Your task to perform on an android device: open app "Instagram" Image 0: 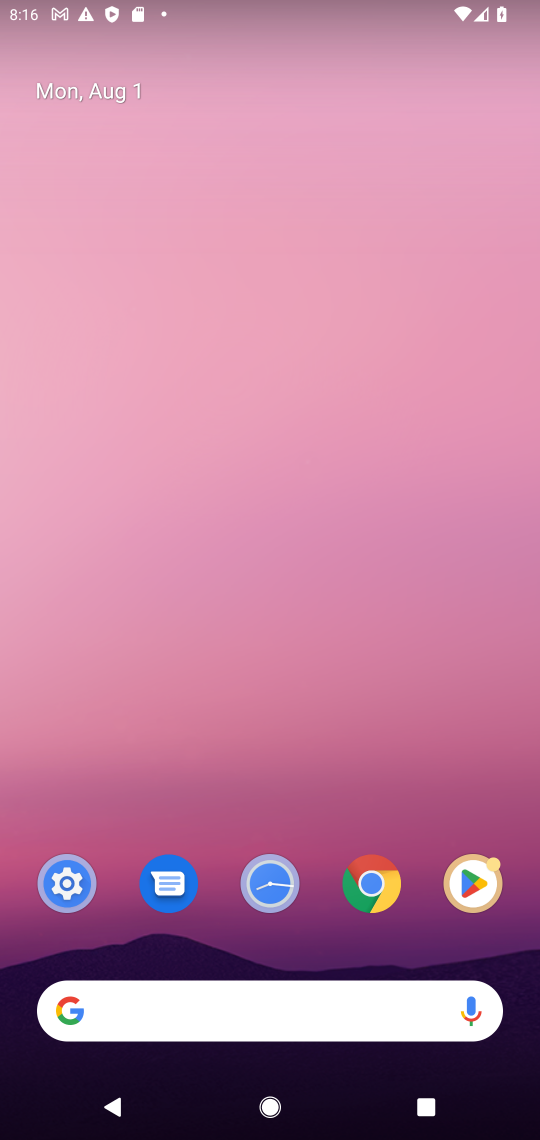
Step 0: drag from (305, 744) to (233, 408)
Your task to perform on an android device: open app "Instagram" Image 1: 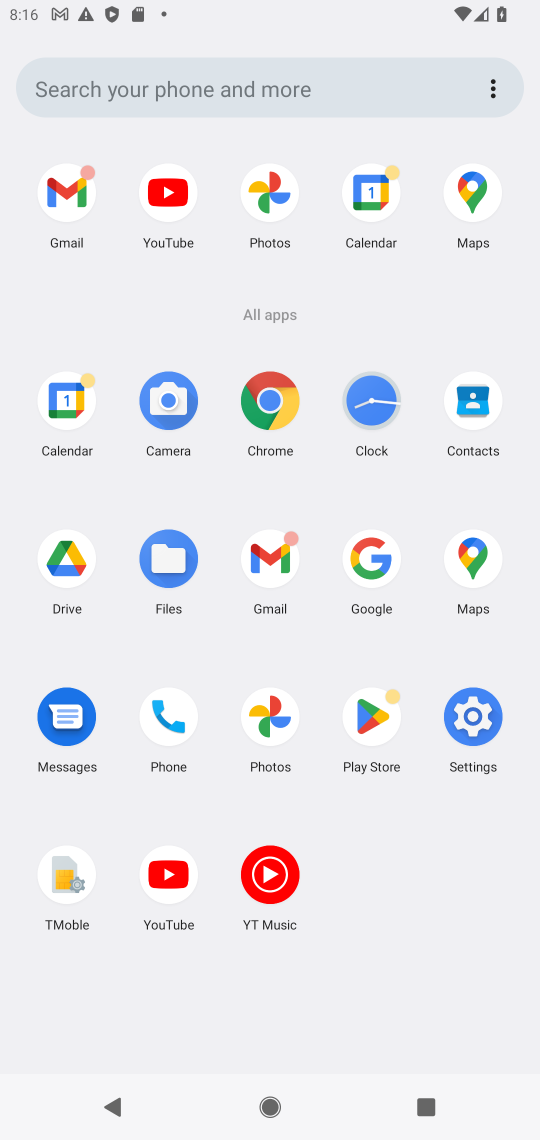
Step 1: click (370, 699)
Your task to perform on an android device: open app "Instagram" Image 2: 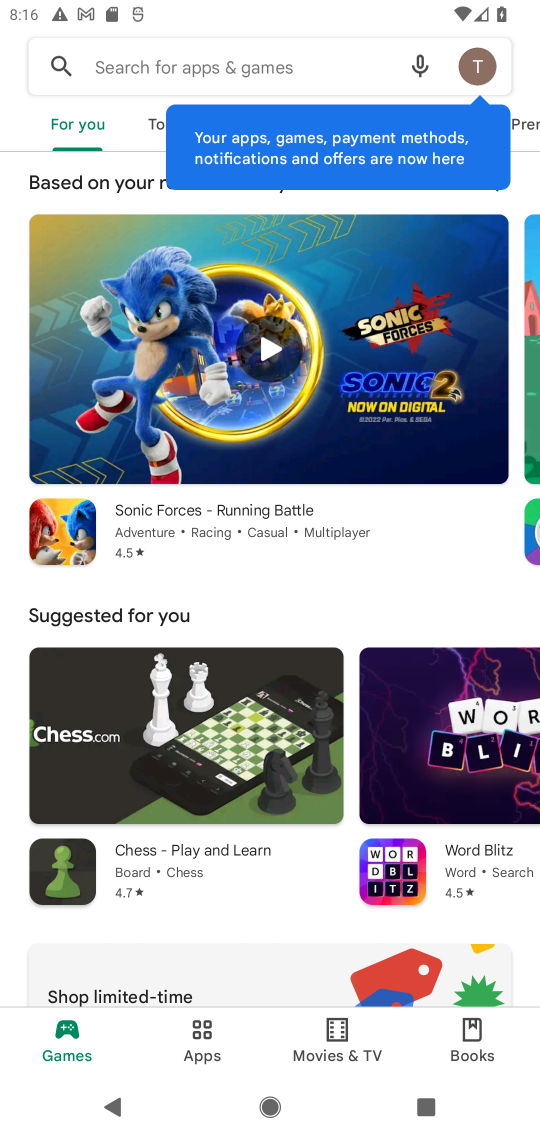
Step 2: click (299, 62)
Your task to perform on an android device: open app "Instagram" Image 3: 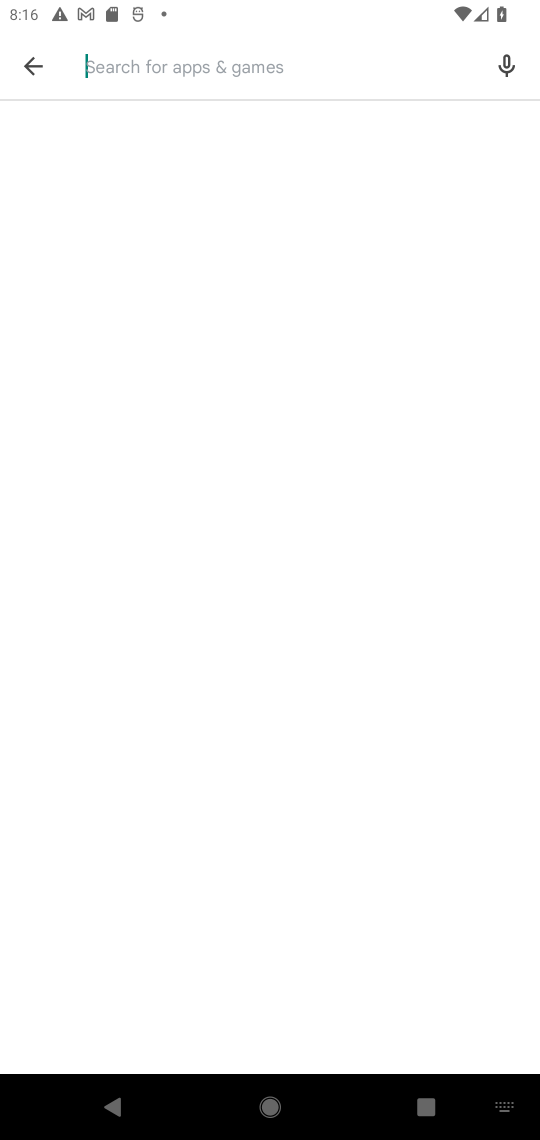
Step 3: type "insta"
Your task to perform on an android device: open app "Instagram" Image 4: 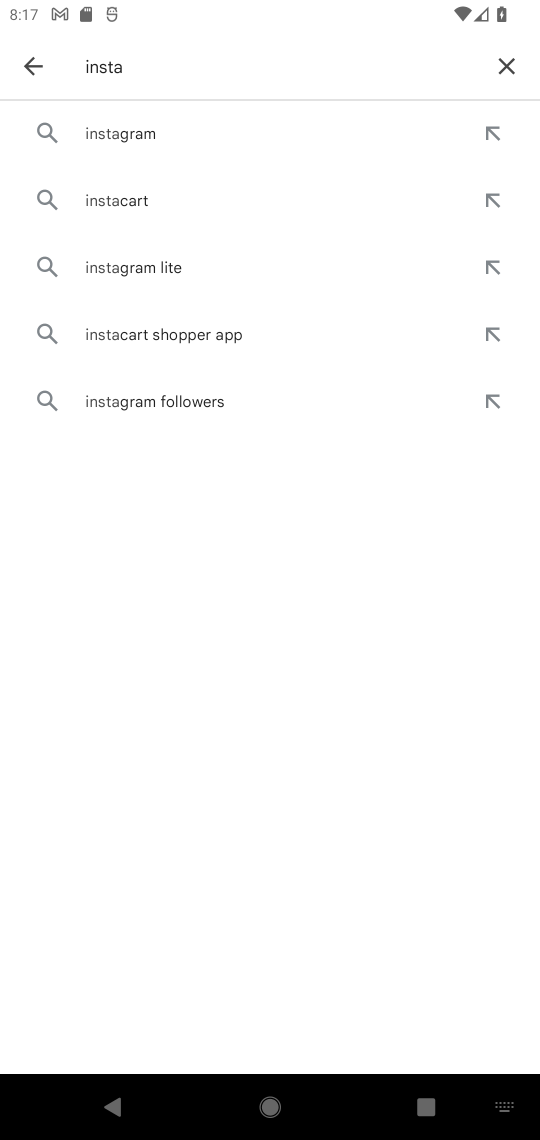
Step 4: click (311, 124)
Your task to perform on an android device: open app "Instagram" Image 5: 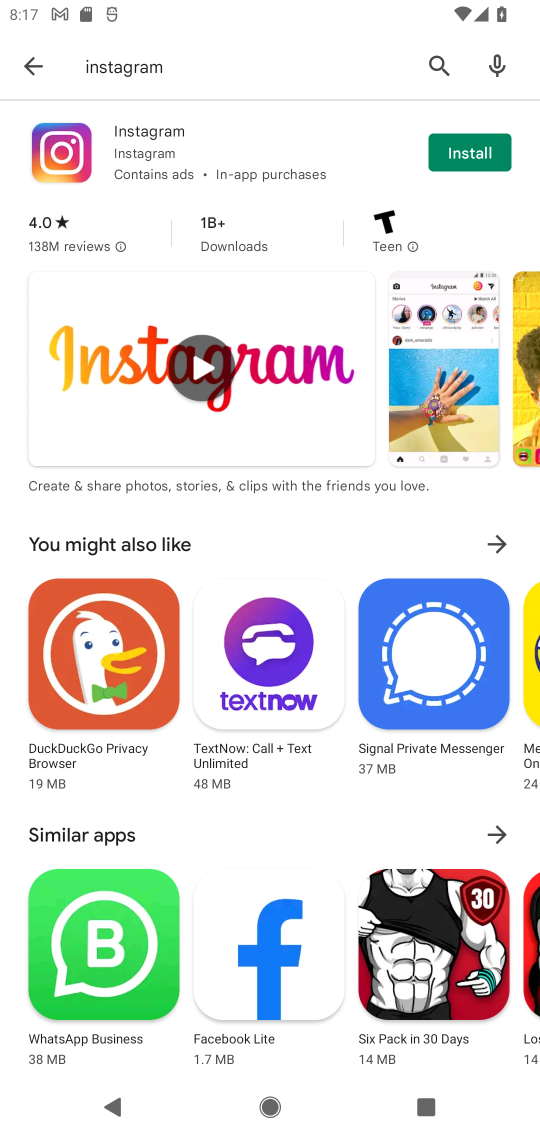
Step 5: task complete